Your task to perform on an android device: Open privacy settings Image 0: 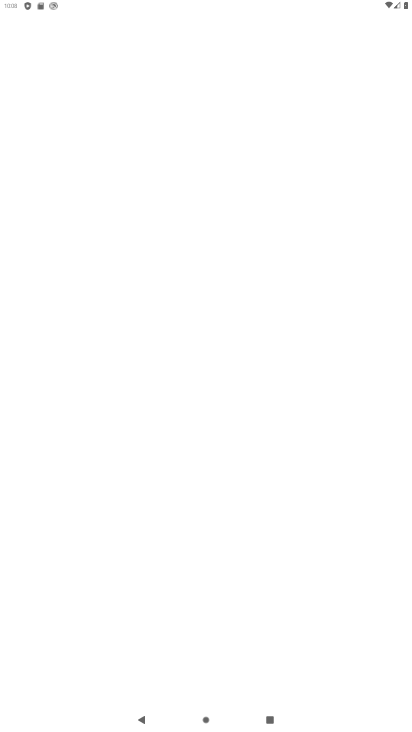
Step 0: click (295, 155)
Your task to perform on an android device: Open privacy settings Image 1: 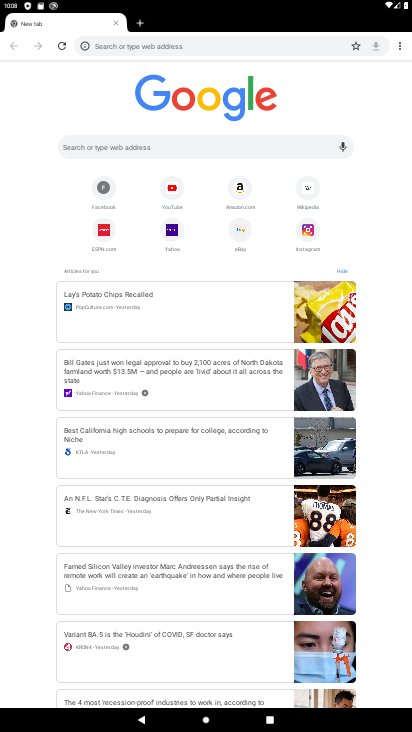
Step 1: press back button
Your task to perform on an android device: Open privacy settings Image 2: 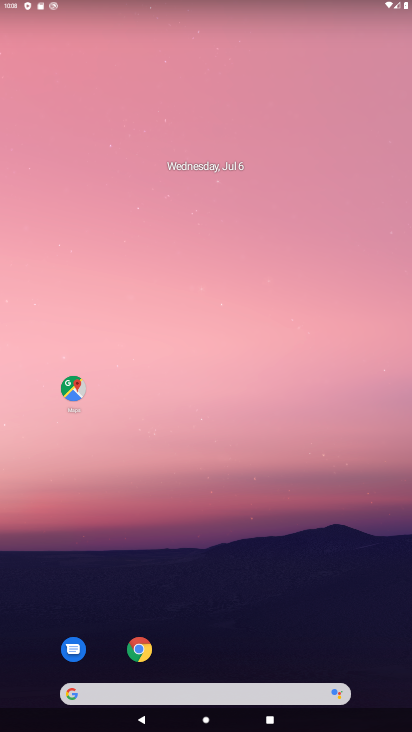
Step 2: drag from (390, 709) to (383, 128)
Your task to perform on an android device: Open privacy settings Image 3: 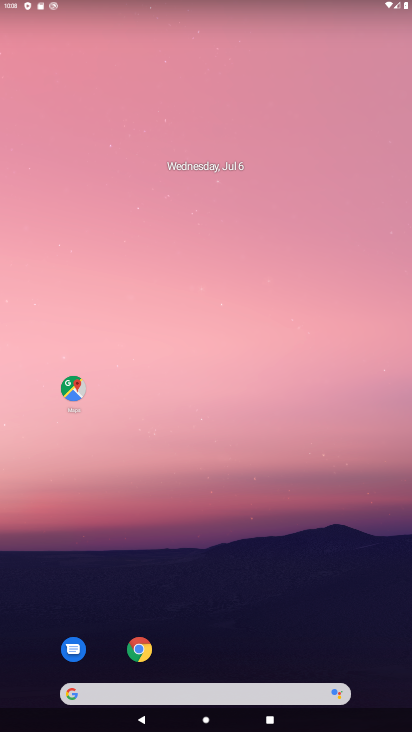
Step 3: drag from (380, 704) to (343, 62)
Your task to perform on an android device: Open privacy settings Image 4: 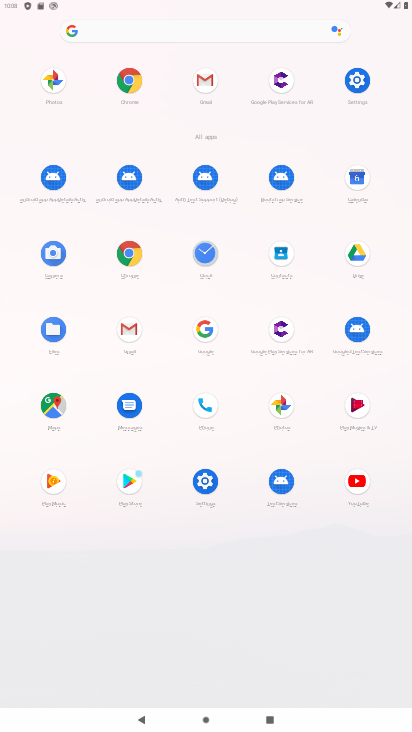
Step 4: click (209, 481)
Your task to perform on an android device: Open privacy settings Image 5: 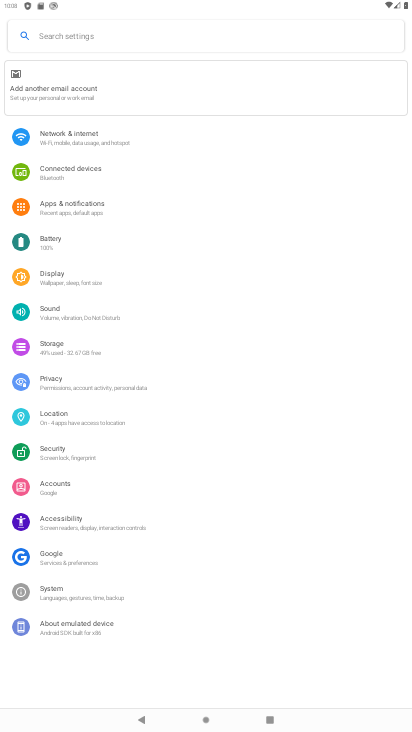
Step 5: click (57, 378)
Your task to perform on an android device: Open privacy settings Image 6: 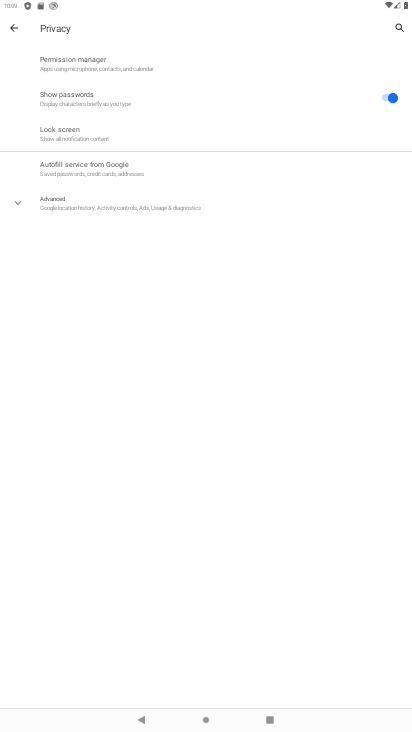
Step 6: click (11, 206)
Your task to perform on an android device: Open privacy settings Image 7: 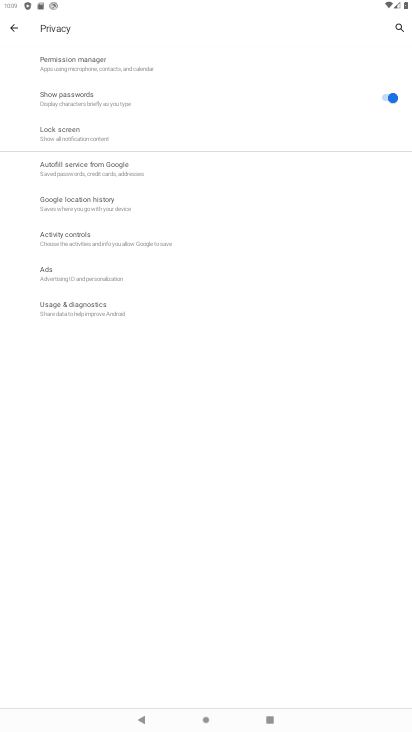
Step 7: task complete